Your task to perform on an android device: search for starred emails in the gmail app Image 0: 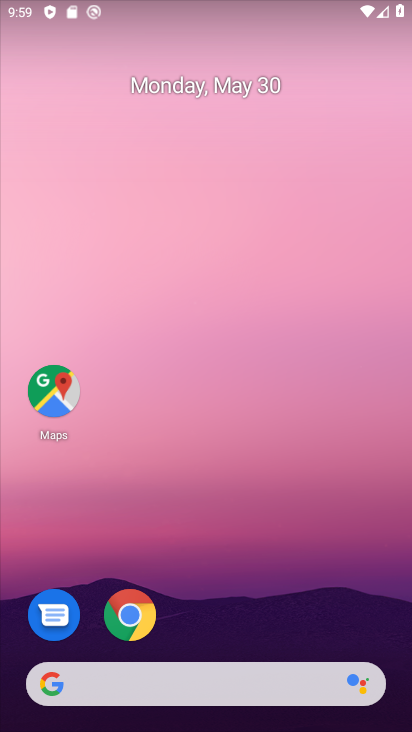
Step 0: drag from (216, 688) to (249, 20)
Your task to perform on an android device: search for starred emails in the gmail app Image 1: 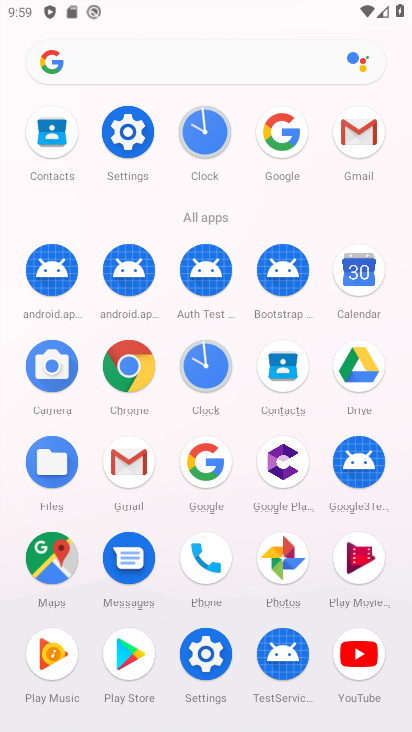
Step 1: click (127, 466)
Your task to perform on an android device: search for starred emails in the gmail app Image 2: 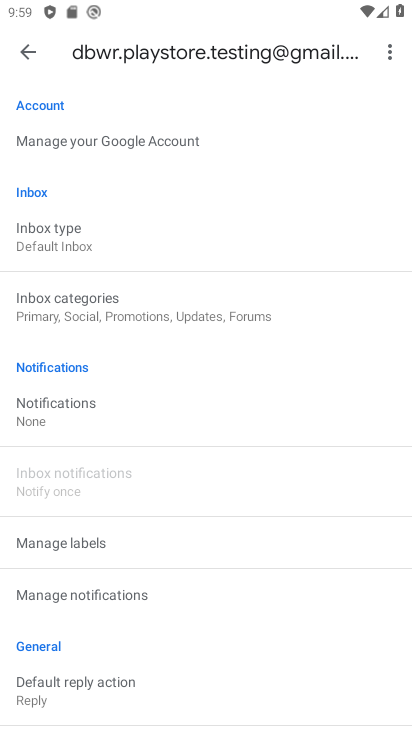
Step 2: click (26, 48)
Your task to perform on an android device: search for starred emails in the gmail app Image 3: 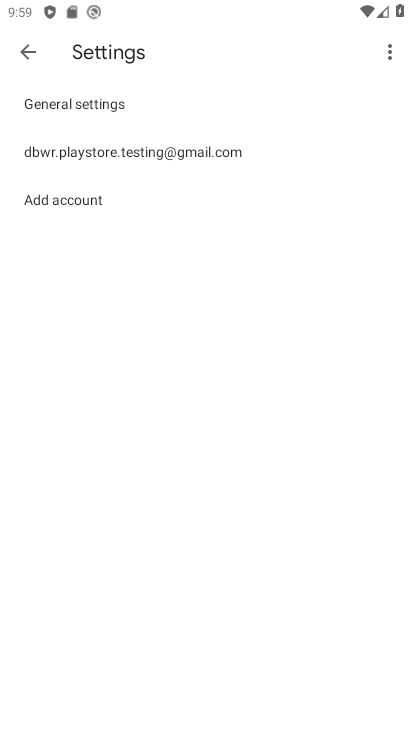
Step 3: click (27, 48)
Your task to perform on an android device: search for starred emails in the gmail app Image 4: 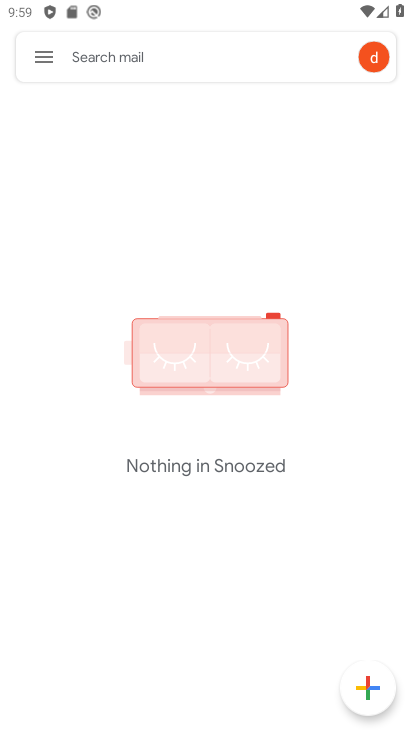
Step 4: click (43, 59)
Your task to perform on an android device: search for starred emails in the gmail app Image 5: 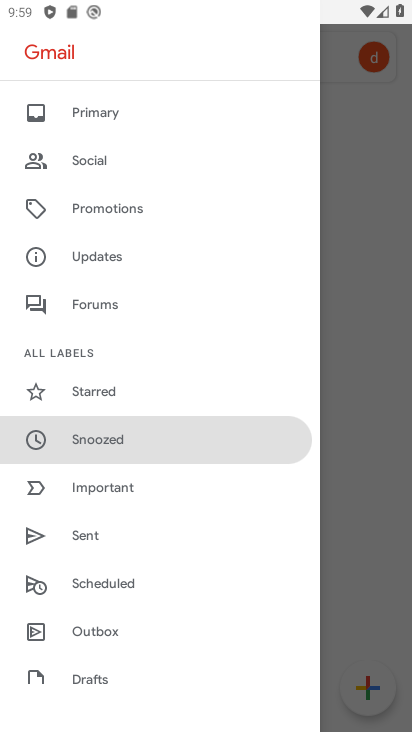
Step 5: click (101, 387)
Your task to perform on an android device: search for starred emails in the gmail app Image 6: 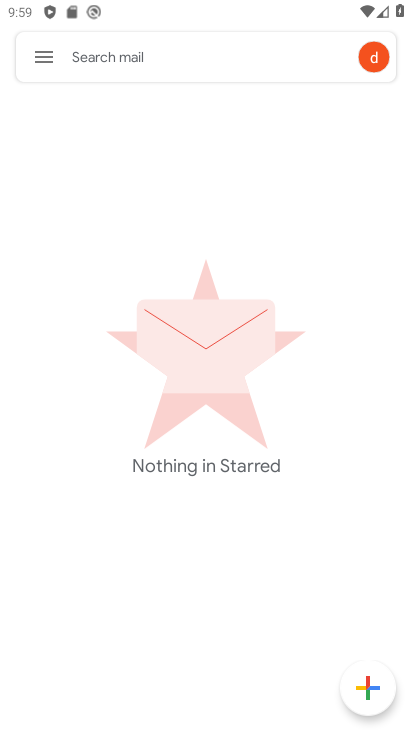
Step 6: task complete